Your task to perform on an android device: change the clock display to analog Image 0: 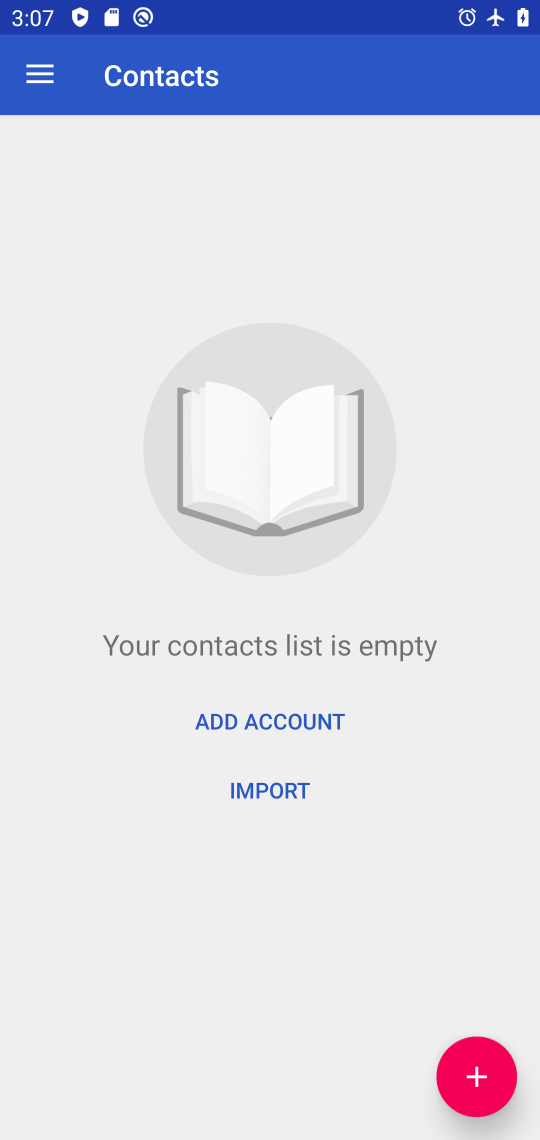
Step 0: press home button
Your task to perform on an android device: change the clock display to analog Image 1: 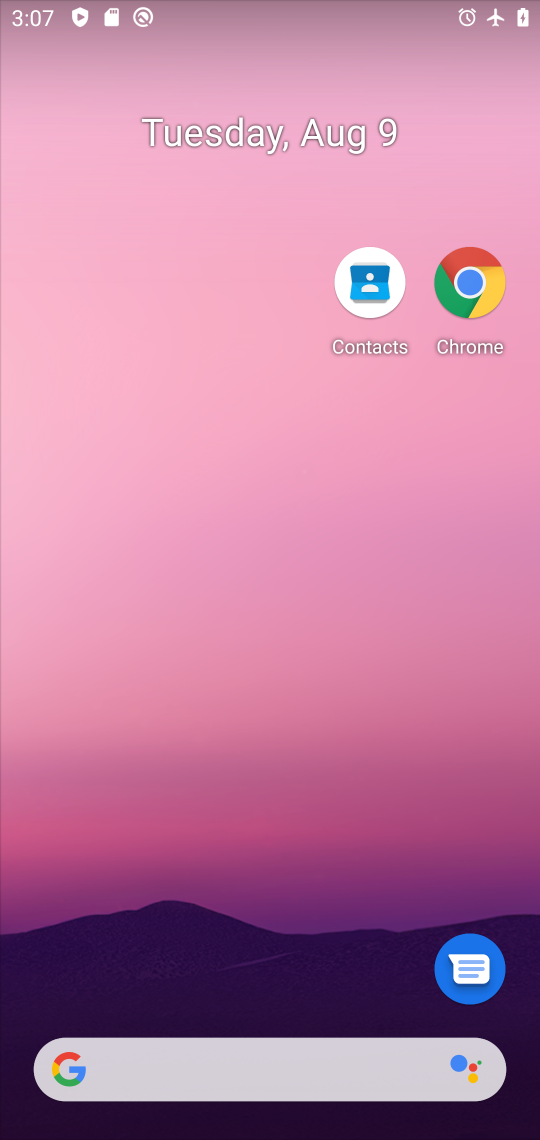
Step 1: drag from (278, 964) to (227, 213)
Your task to perform on an android device: change the clock display to analog Image 2: 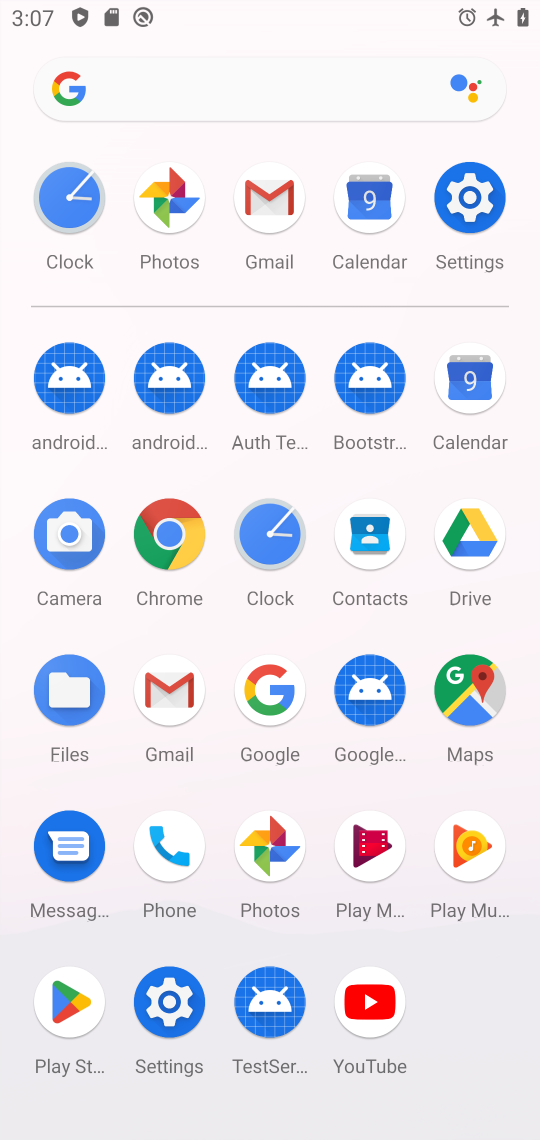
Step 2: click (276, 523)
Your task to perform on an android device: change the clock display to analog Image 3: 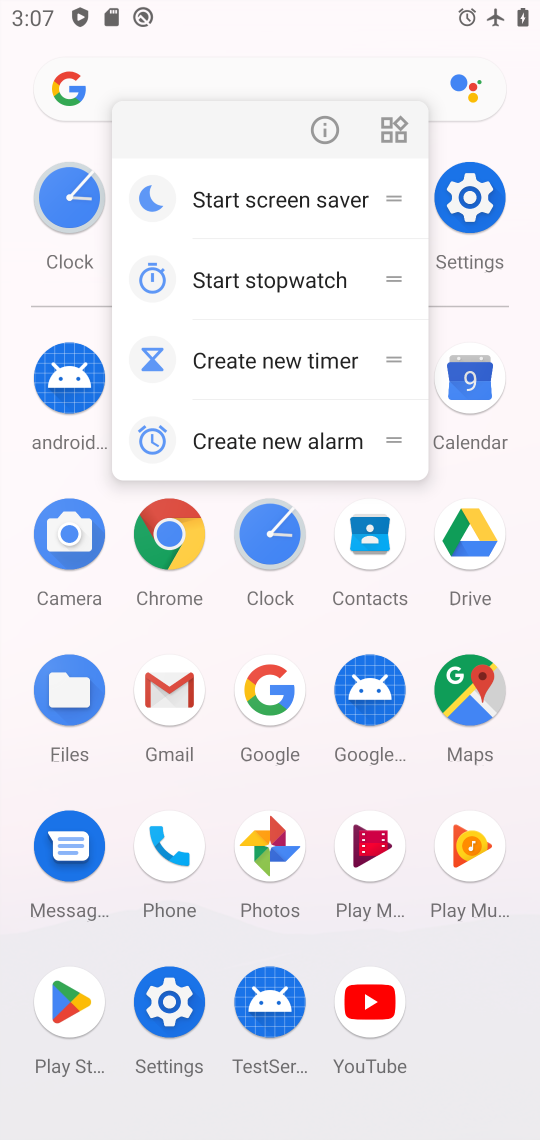
Step 3: click (332, 123)
Your task to perform on an android device: change the clock display to analog Image 4: 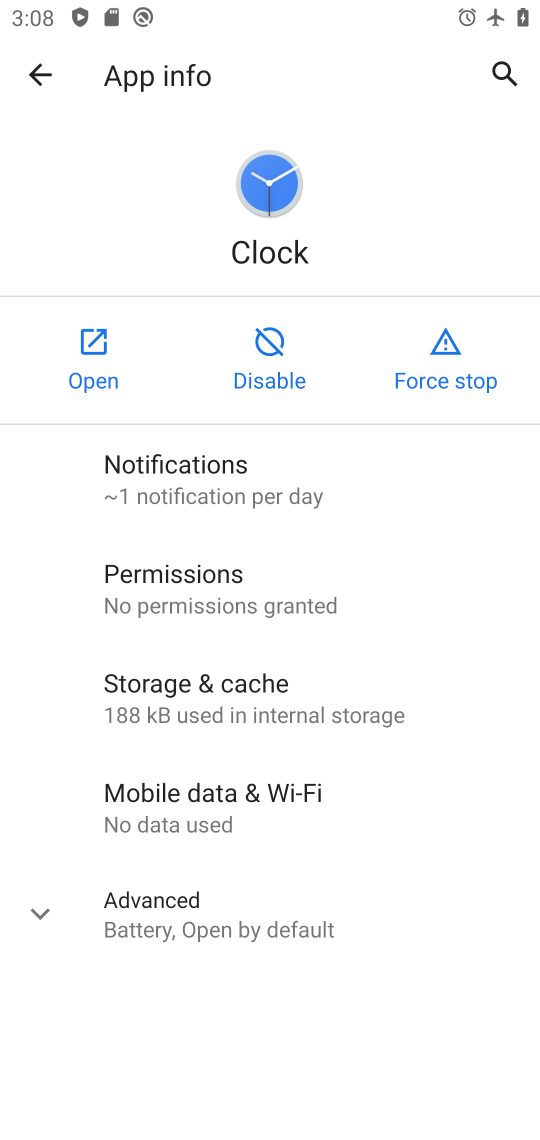
Step 4: click (94, 344)
Your task to perform on an android device: change the clock display to analog Image 5: 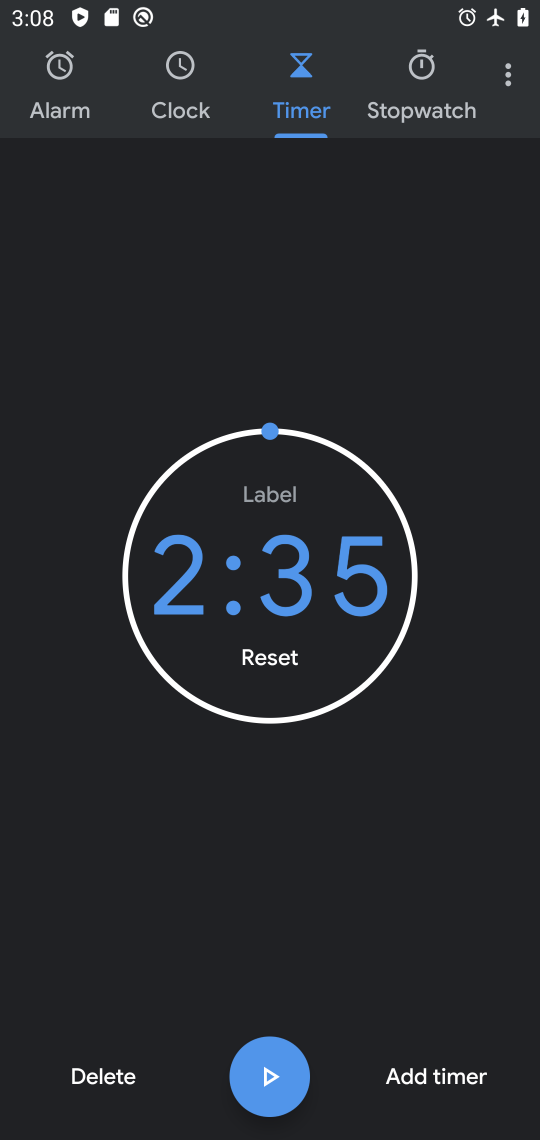
Step 5: drag from (513, 65) to (347, 131)
Your task to perform on an android device: change the clock display to analog Image 6: 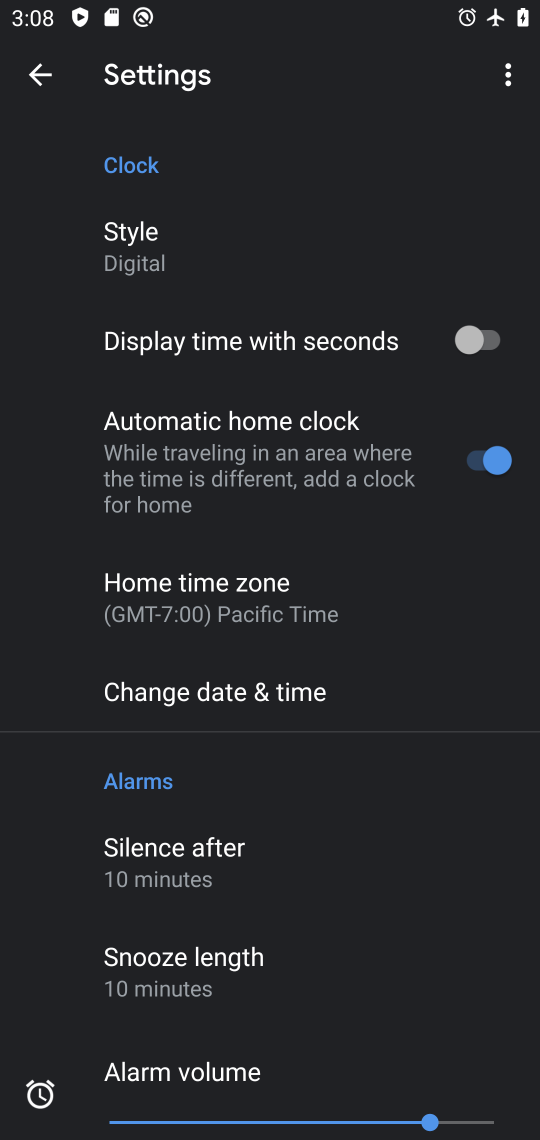
Step 6: click (199, 239)
Your task to perform on an android device: change the clock display to analog Image 7: 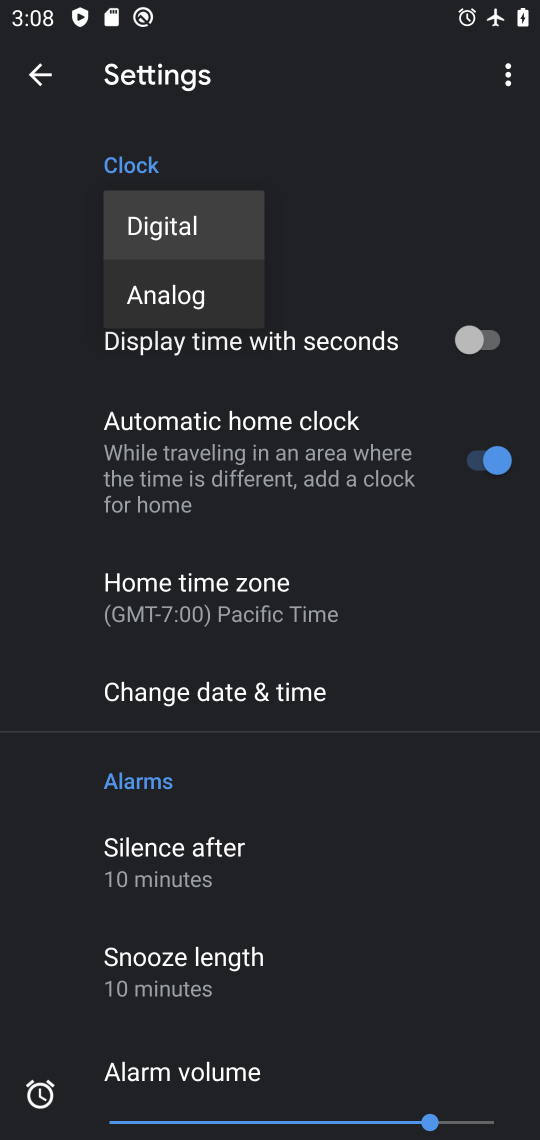
Step 7: click (181, 283)
Your task to perform on an android device: change the clock display to analog Image 8: 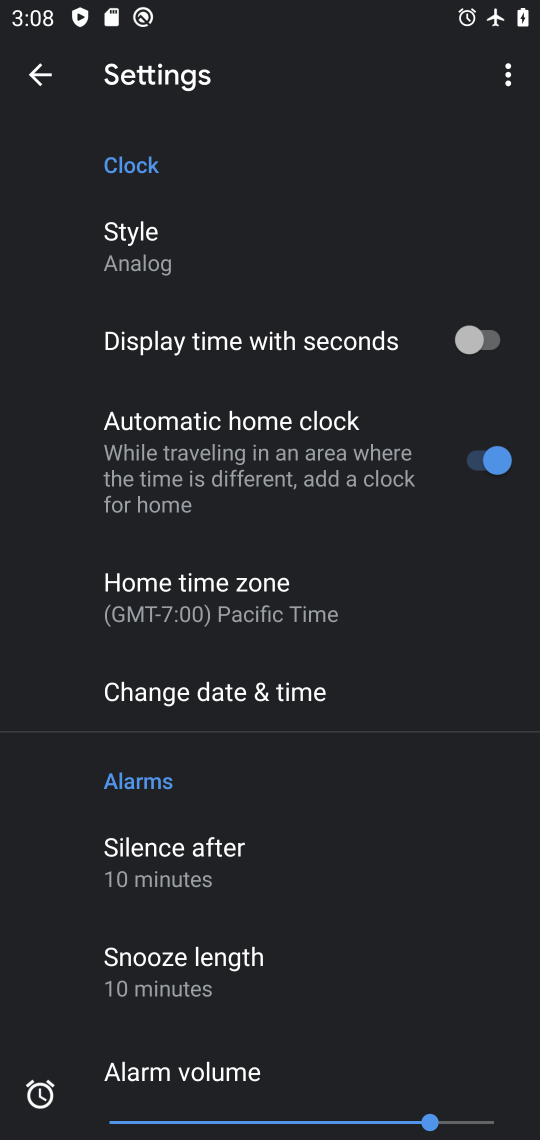
Step 8: task complete